Your task to perform on an android device: Go to CNN.com Image 0: 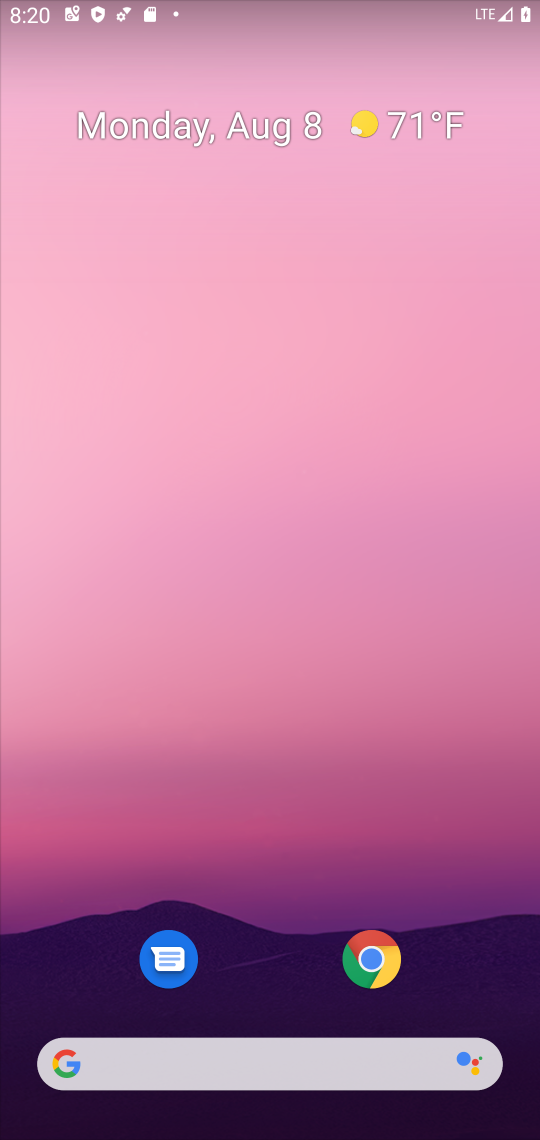
Step 0: drag from (493, 984) to (231, 11)
Your task to perform on an android device: Go to CNN.com Image 1: 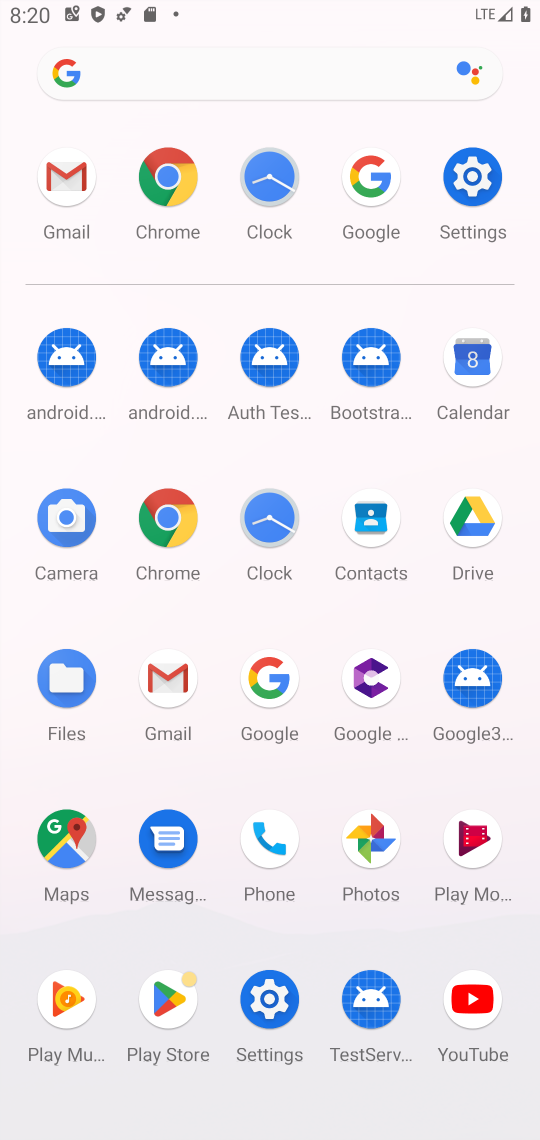
Step 1: click (272, 685)
Your task to perform on an android device: Go to CNN.com Image 2: 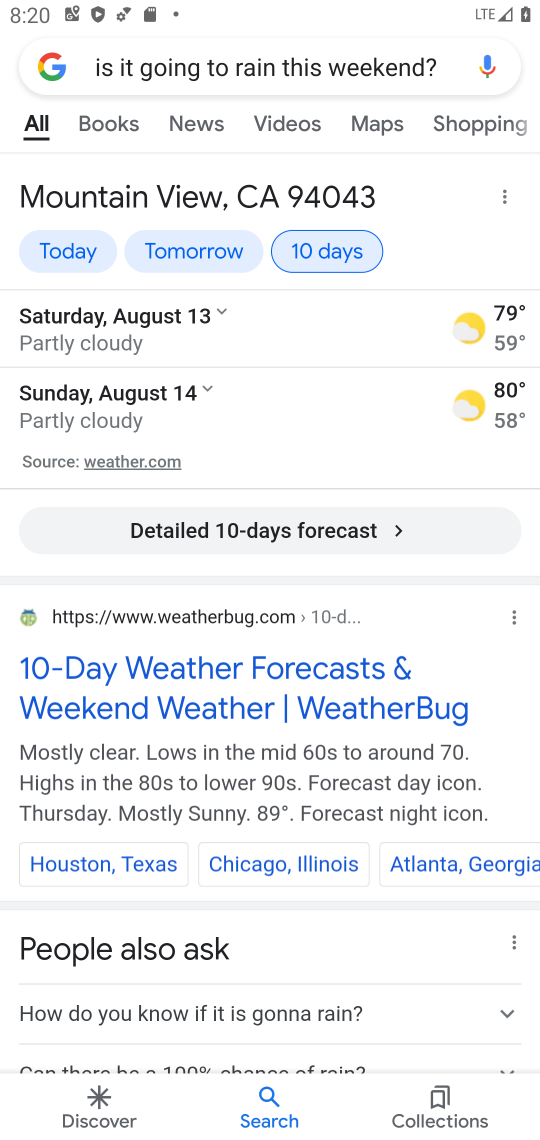
Step 2: press back button
Your task to perform on an android device: Go to CNN.com Image 3: 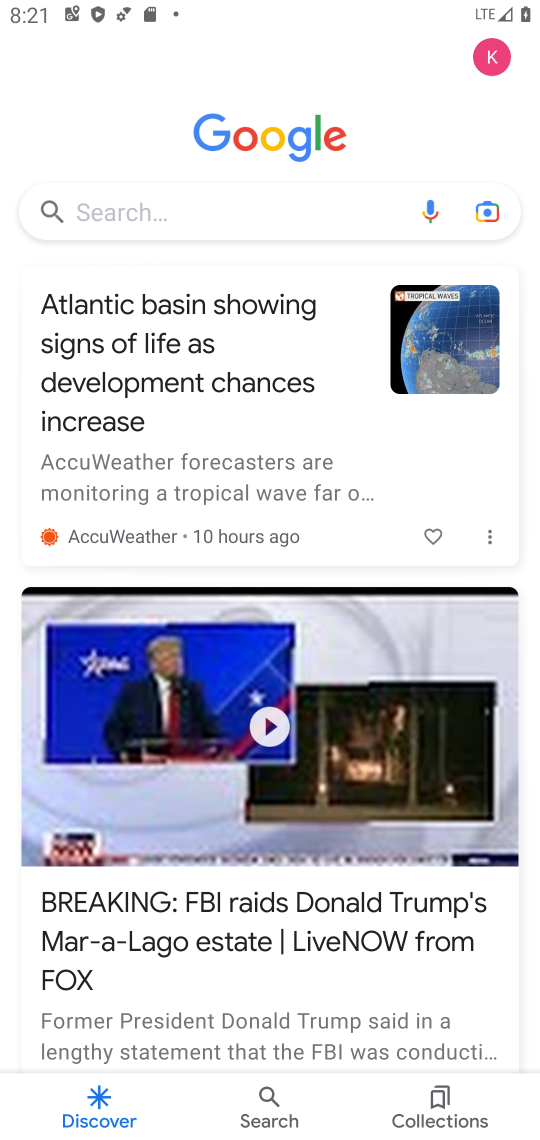
Step 3: click (170, 205)
Your task to perform on an android device: Go to CNN.com Image 4: 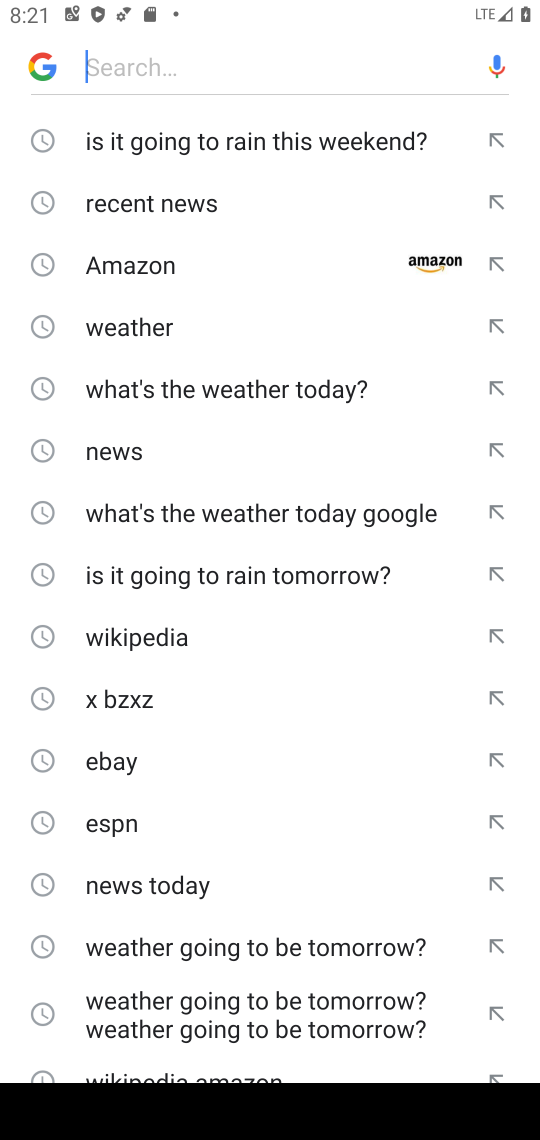
Step 4: type "CNN.com"
Your task to perform on an android device: Go to CNN.com Image 5: 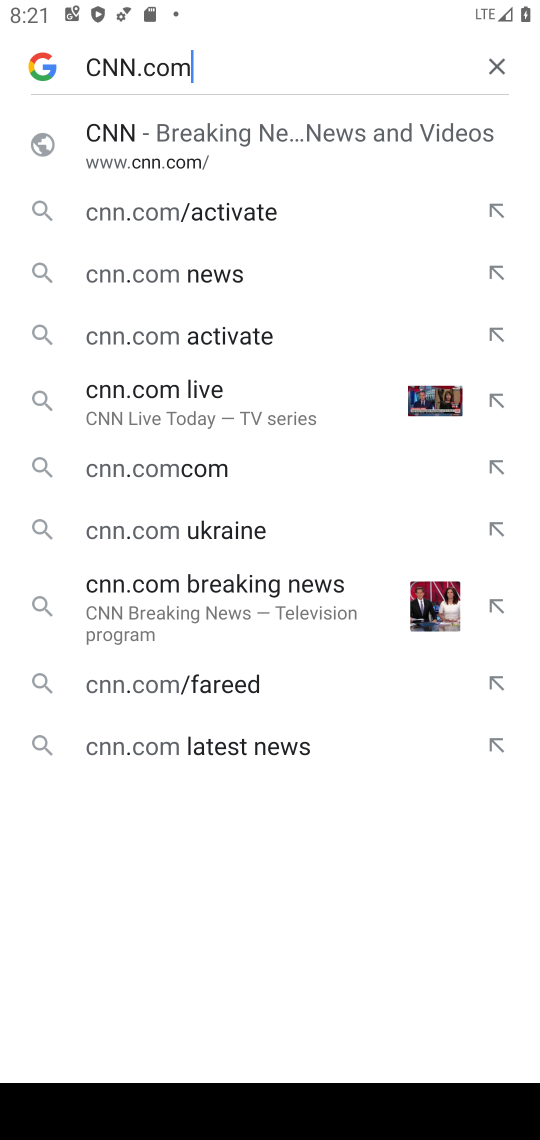
Step 5: click (268, 152)
Your task to perform on an android device: Go to CNN.com Image 6: 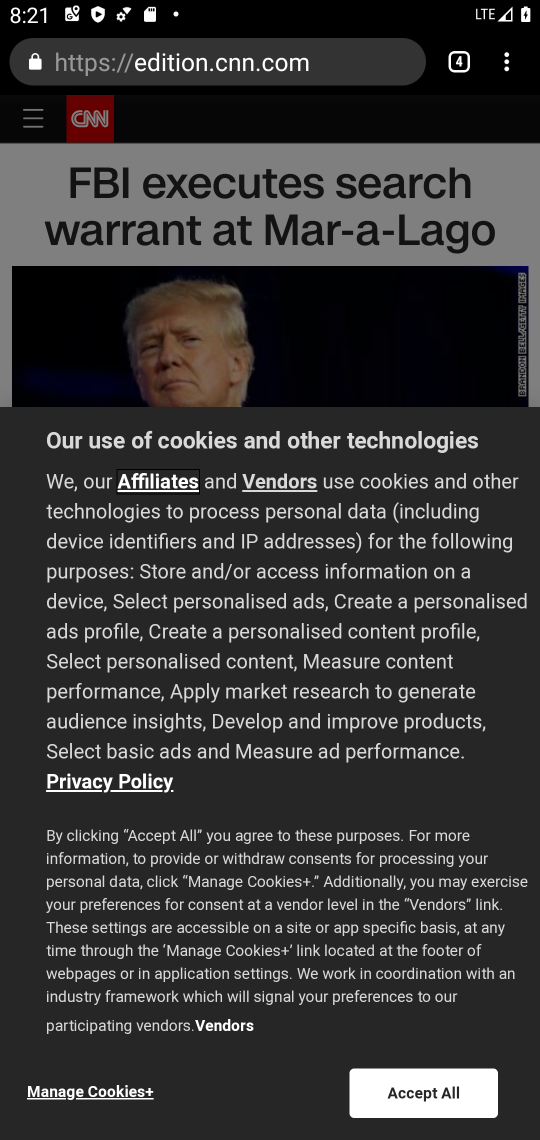
Step 6: task complete